Your task to perform on an android device: Add acer predator to the cart on walmart.com Image 0: 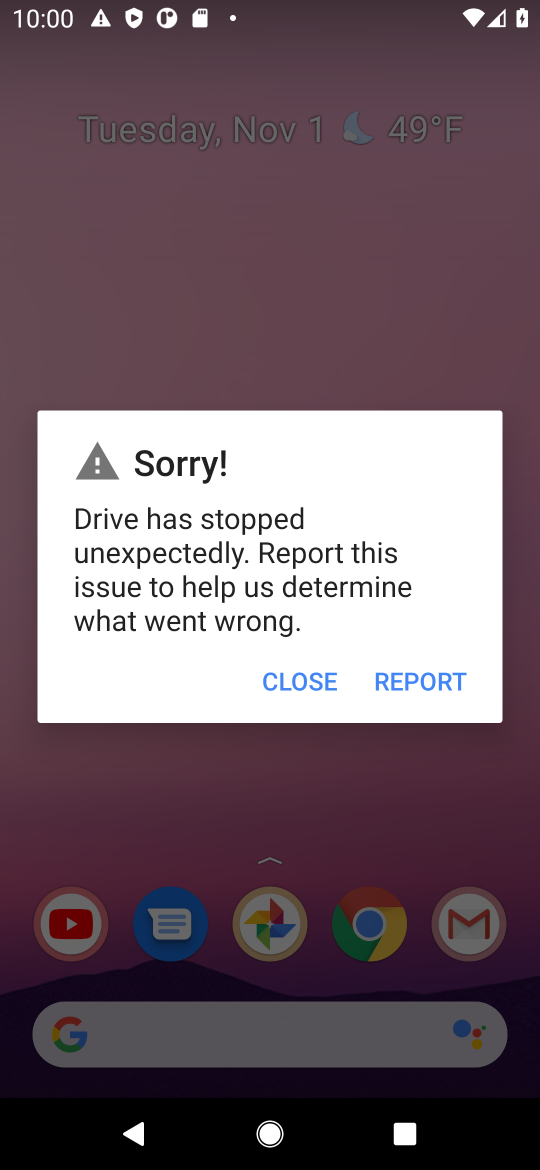
Step 0: press home button
Your task to perform on an android device: Add acer predator to the cart on walmart.com Image 1: 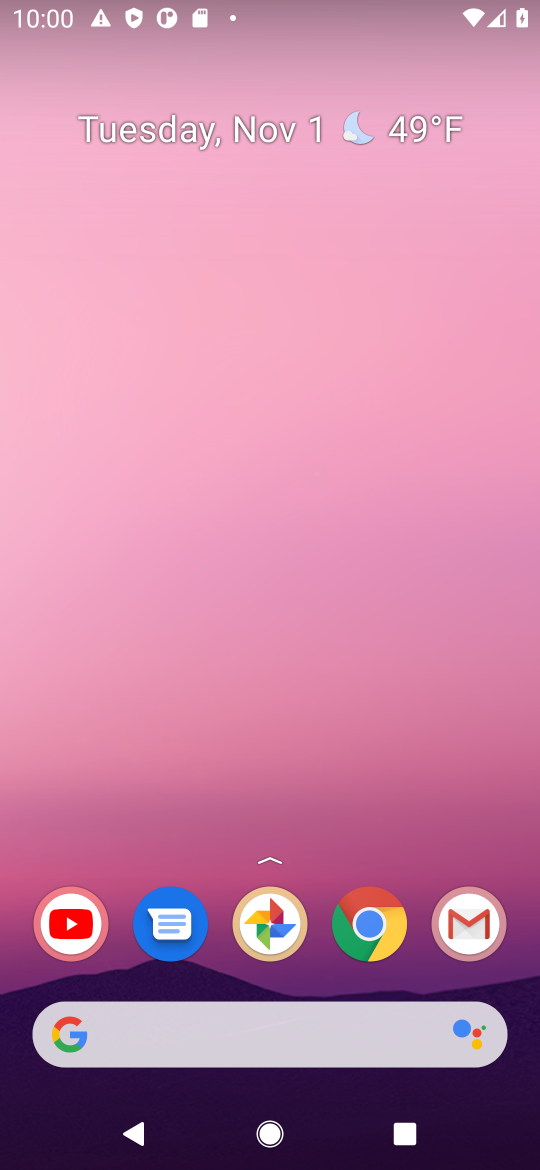
Step 1: click (361, 940)
Your task to perform on an android device: Add acer predator to the cart on walmart.com Image 2: 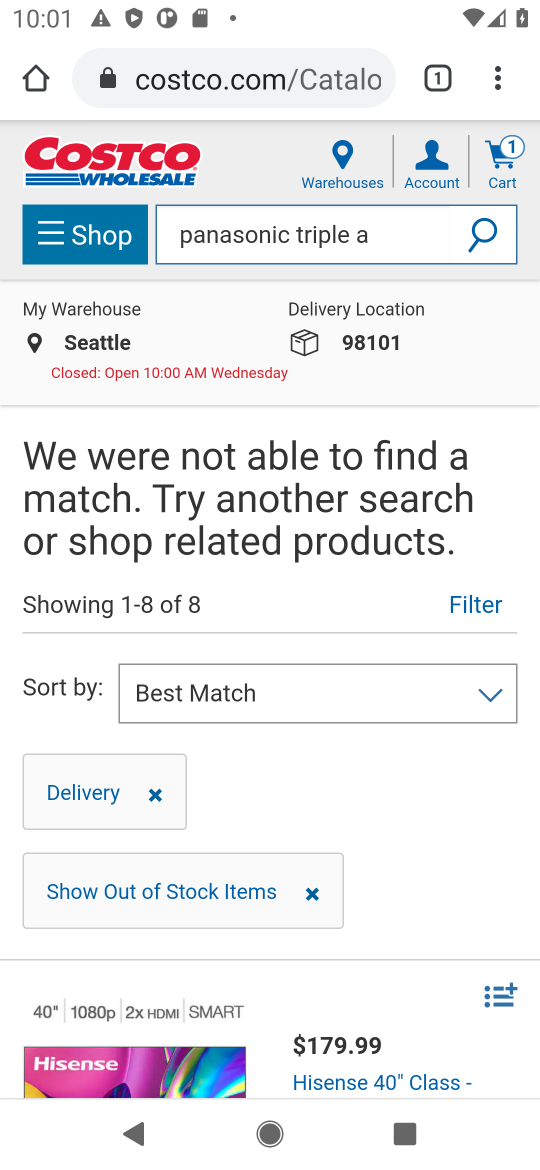
Step 2: click (228, 89)
Your task to perform on an android device: Add acer predator to the cart on walmart.com Image 3: 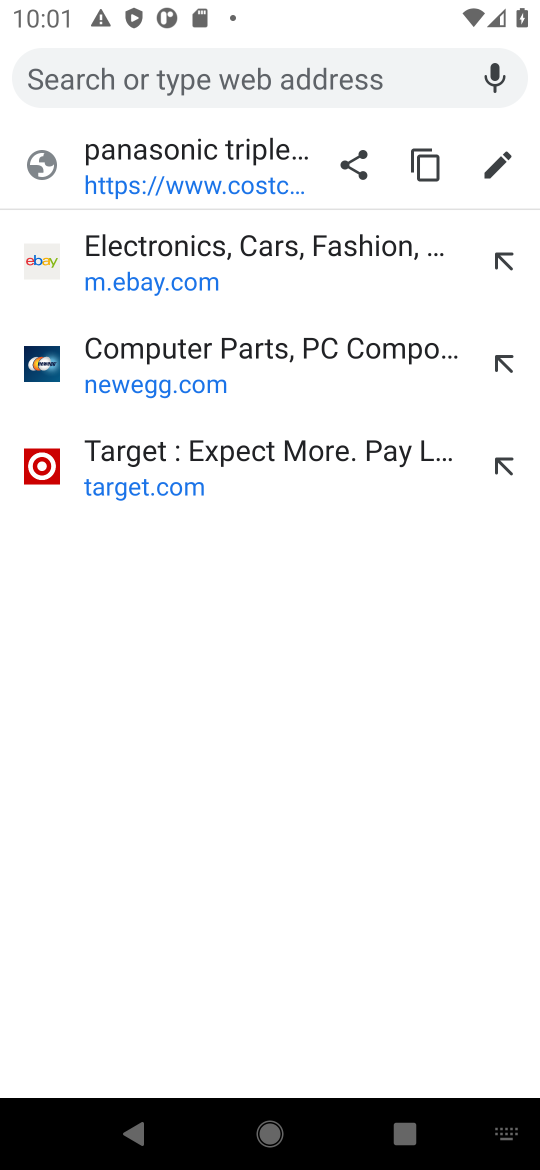
Step 3: type "walmart"
Your task to perform on an android device: Add acer predator to the cart on walmart.com Image 4: 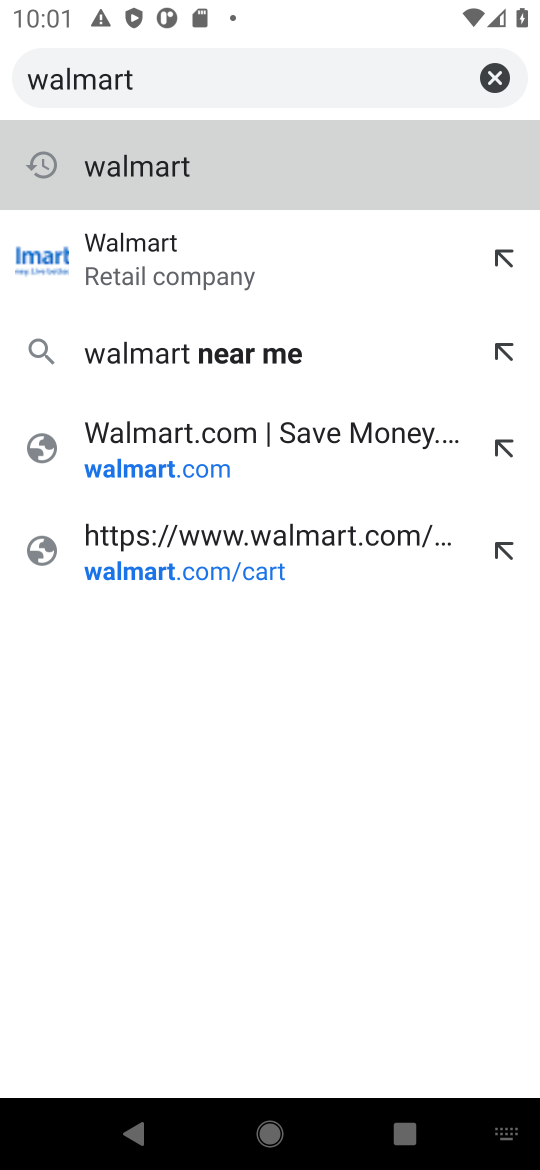
Step 4: click (173, 171)
Your task to perform on an android device: Add acer predator to the cart on walmart.com Image 5: 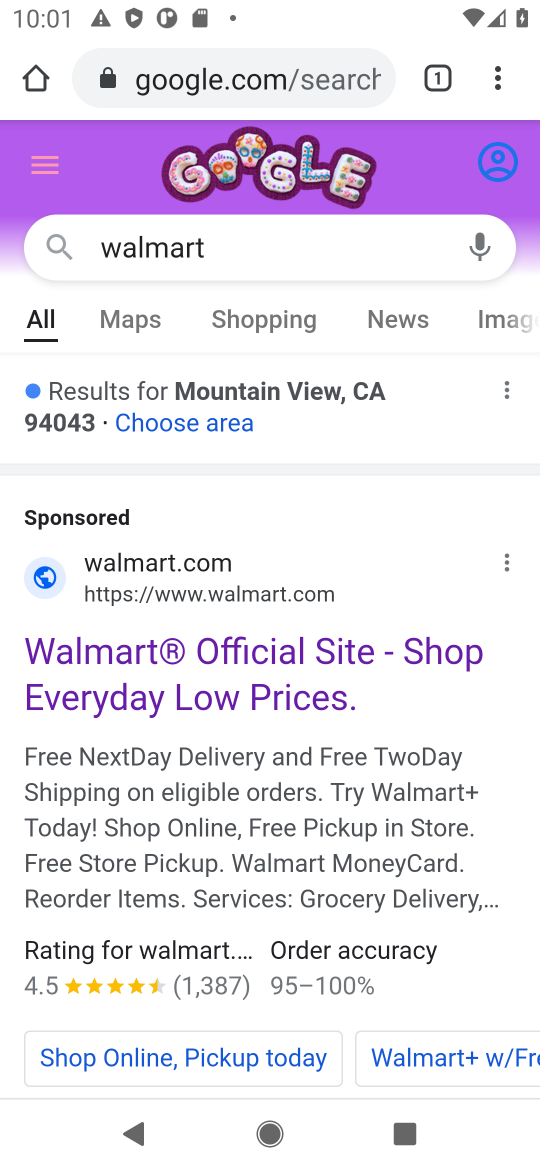
Step 5: drag from (500, 742) to (252, 187)
Your task to perform on an android device: Add acer predator to the cart on walmart.com Image 6: 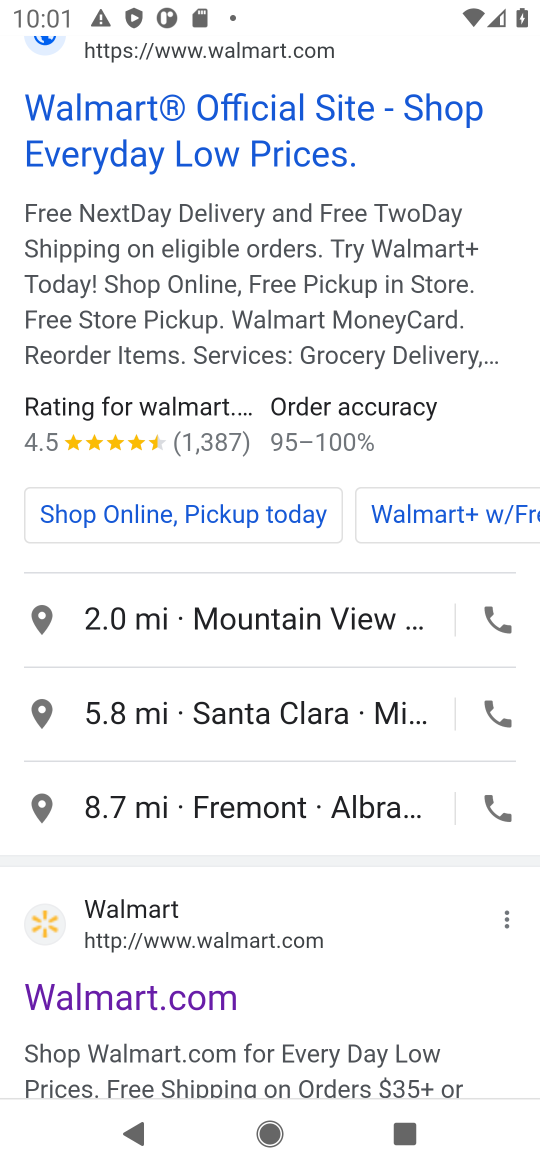
Step 6: click (152, 995)
Your task to perform on an android device: Add acer predator to the cart on walmart.com Image 7: 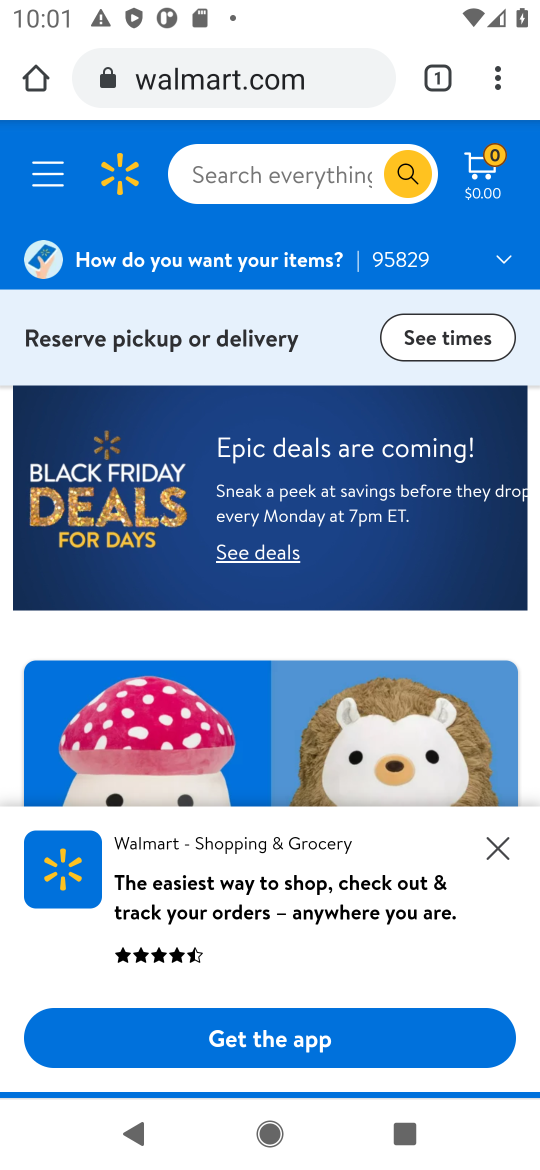
Step 7: click (281, 168)
Your task to perform on an android device: Add acer predator to the cart on walmart.com Image 8: 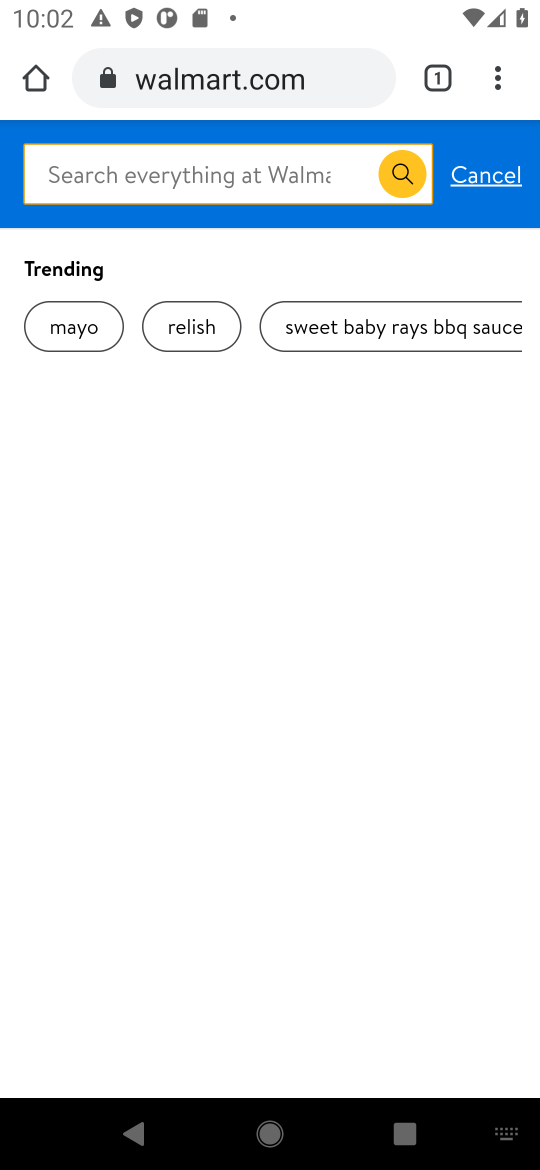
Step 8: type "acer predator"
Your task to perform on an android device: Add acer predator to the cart on walmart.com Image 9: 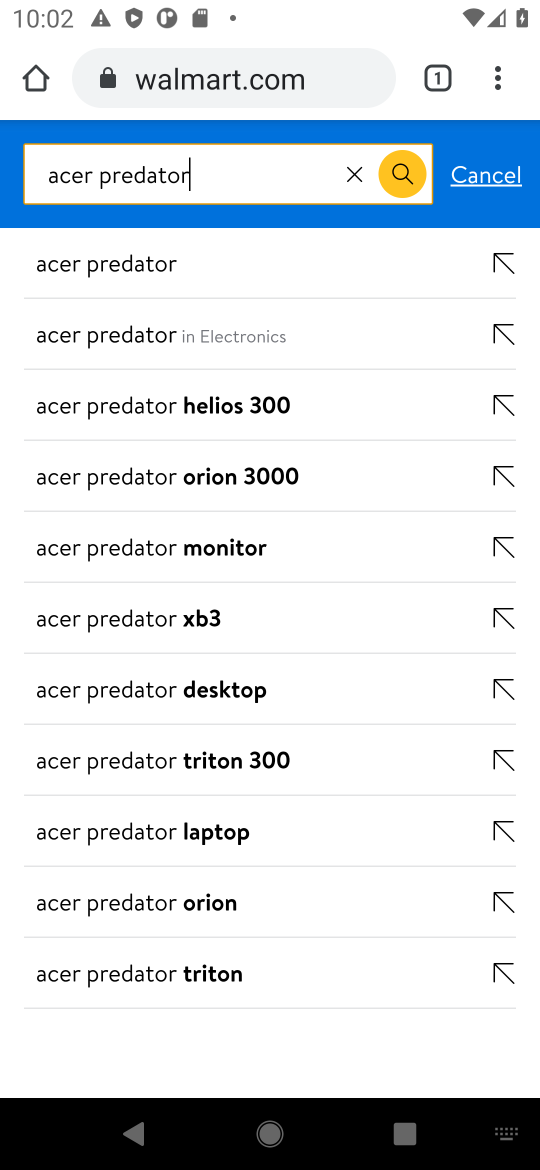
Step 9: click (144, 260)
Your task to perform on an android device: Add acer predator to the cart on walmart.com Image 10: 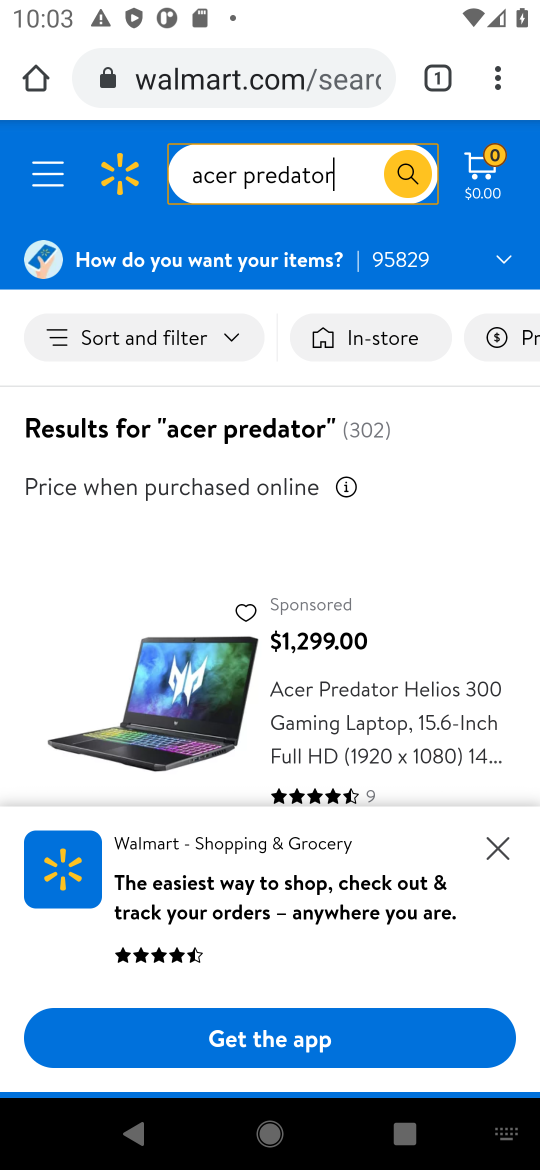
Step 10: click (503, 843)
Your task to perform on an android device: Add acer predator to the cart on walmart.com Image 11: 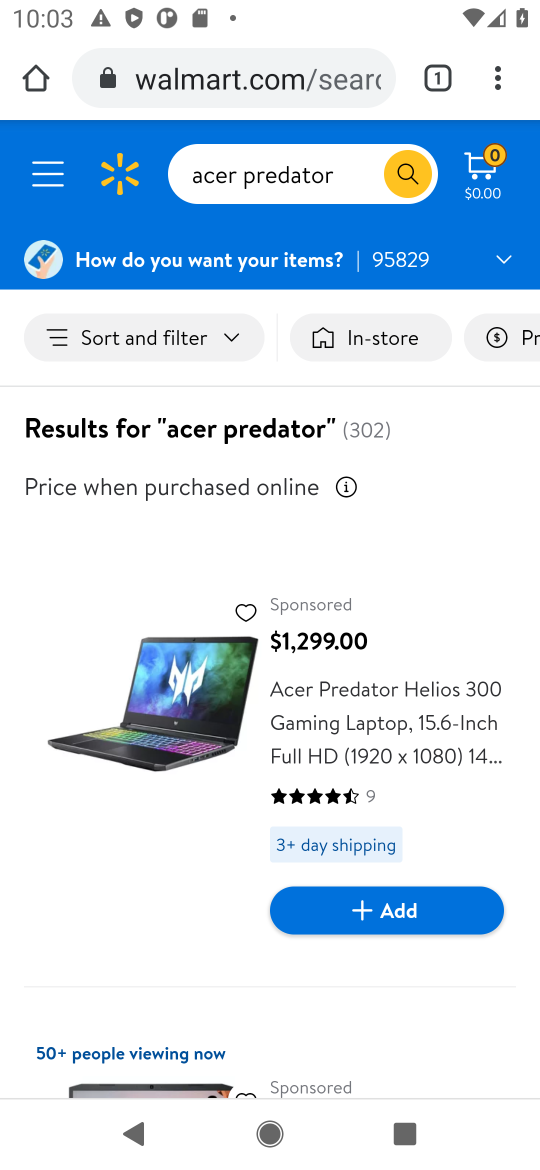
Step 11: click (477, 855)
Your task to perform on an android device: Add acer predator to the cart on walmart.com Image 12: 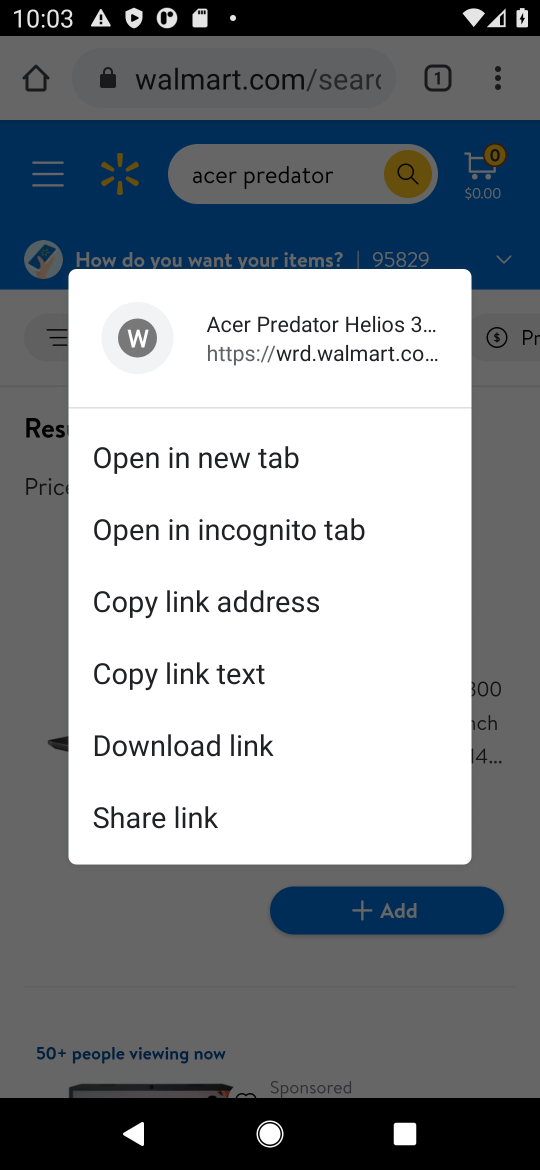
Step 12: click (490, 794)
Your task to perform on an android device: Add acer predator to the cart on walmart.com Image 13: 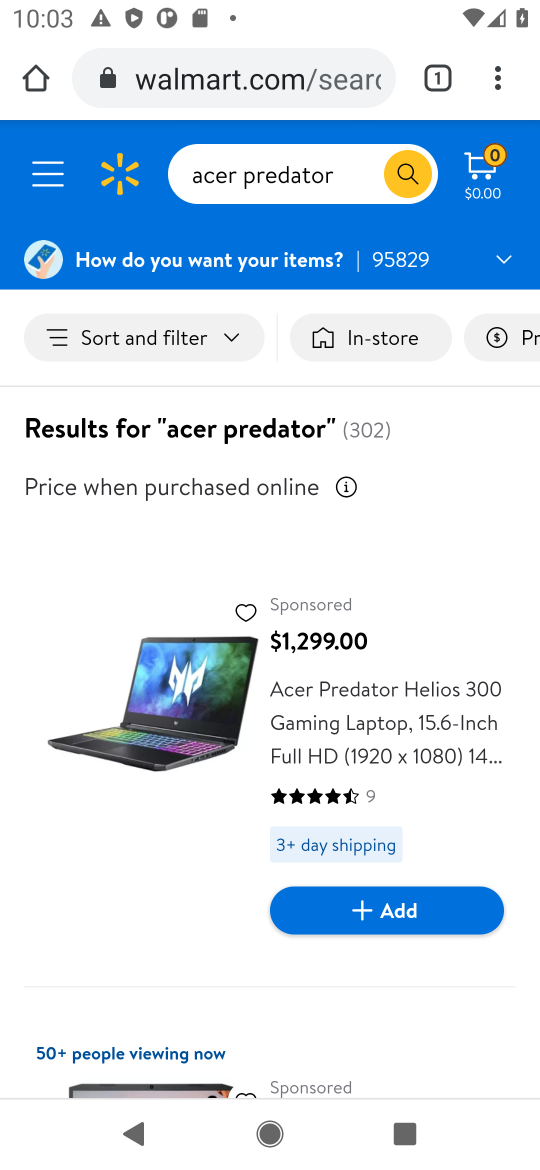
Step 13: click (445, 920)
Your task to perform on an android device: Add acer predator to the cart on walmart.com Image 14: 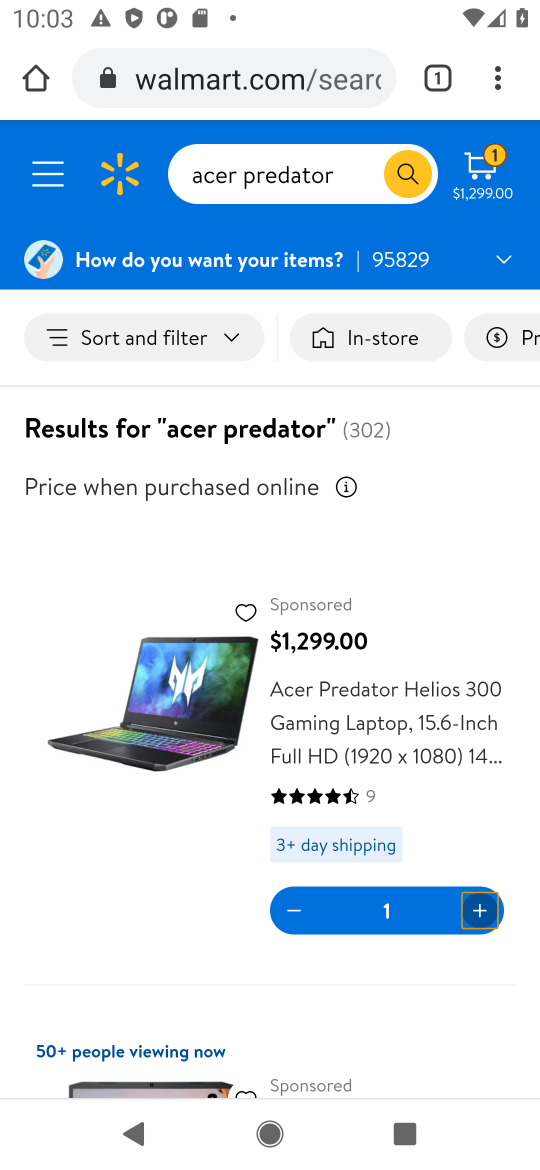
Step 14: task complete